Your task to perform on an android device: open device folders in google photos Image 0: 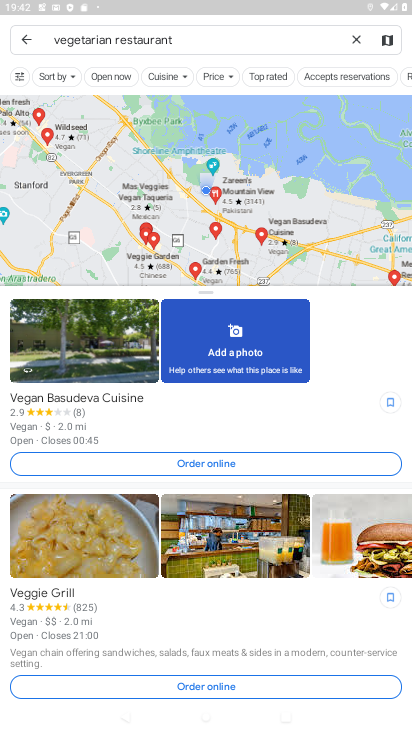
Step 0: press home button
Your task to perform on an android device: open device folders in google photos Image 1: 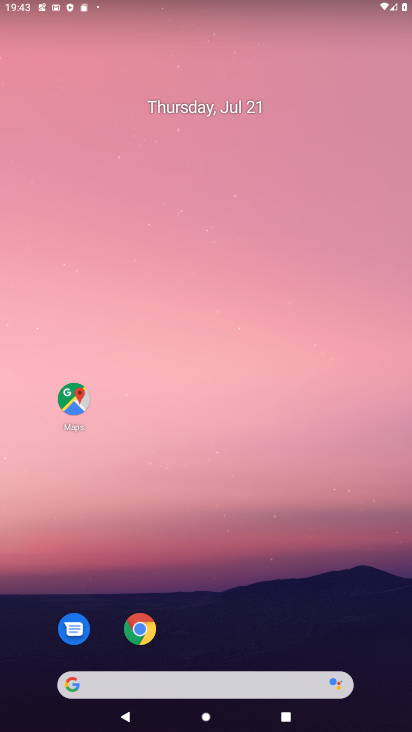
Step 1: drag from (37, 587) to (256, 106)
Your task to perform on an android device: open device folders in google photos Image 2: 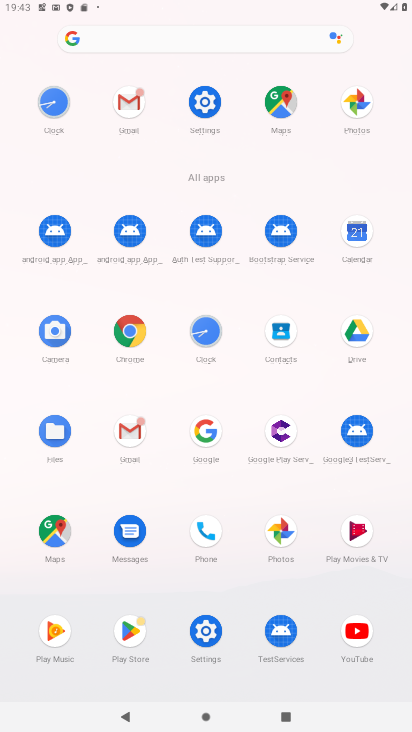
Step 2: click (366, 110)
Your task to perform on an android device: open device folders in google photos Image 3: 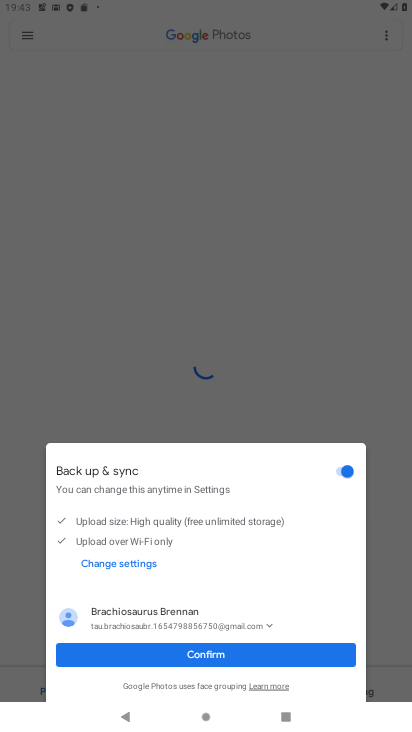
Step 3: click (204, 657)
Your task to perform on an android device: open device folders in google photos Image 4: 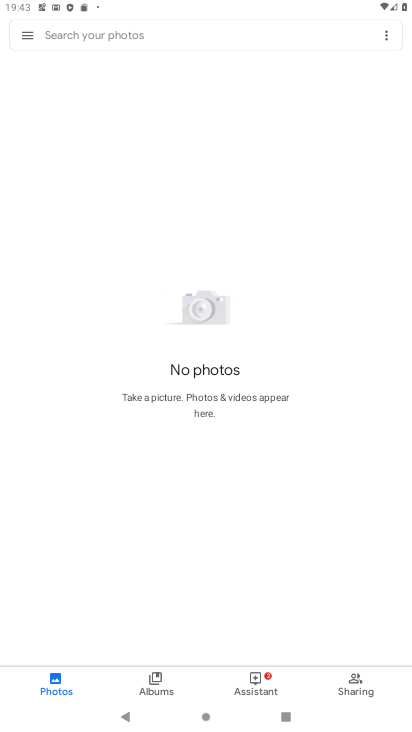
Step 4: click (25, 31)
Your task to perform on an android device: open device folders in google photos Image 5: 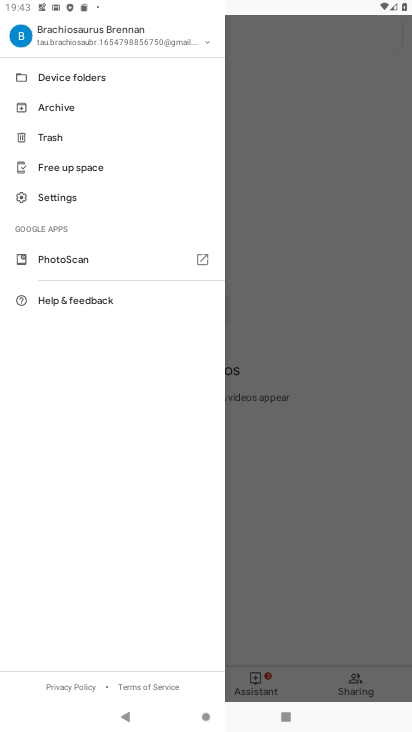
Step 5: click (74, 83)
Your task to perform on an android device: open device folders in google photos Image 6: 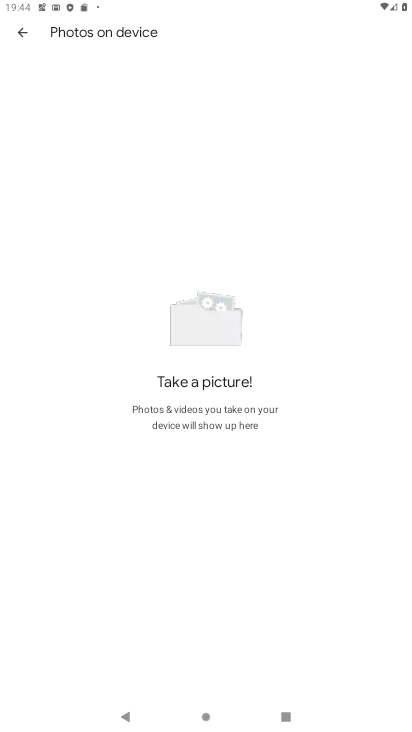
Step 6: task complete